Your task to perform on an android device: turn smart compose on in the gmail app Image 0: 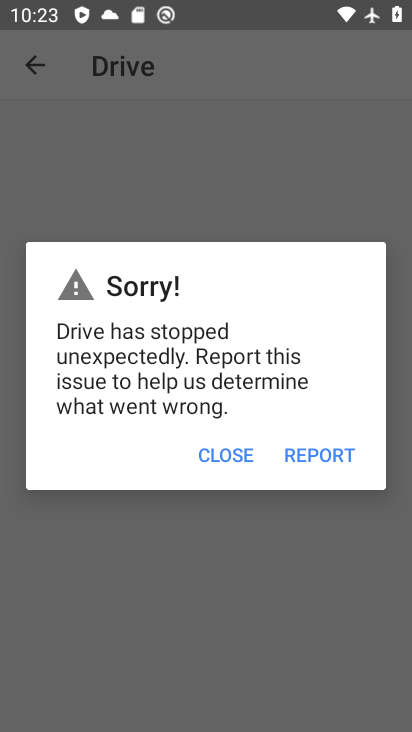
Step 0: press home button
Your task to perform on an android device: turn smart compose on in the gmail app Image 1: 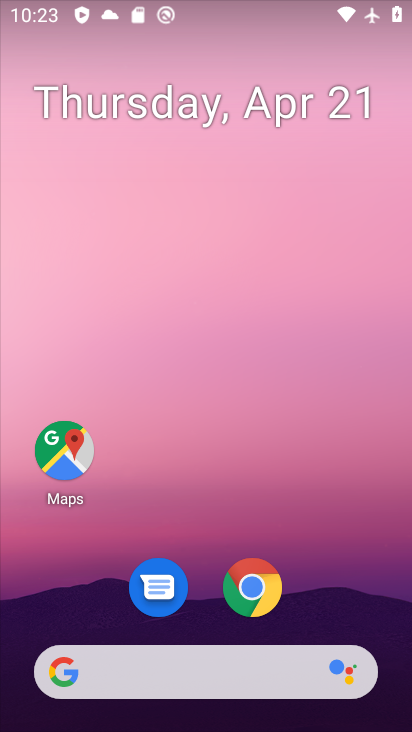
Step 1: drag from (346, 546) to (351, 187)
Your task to perform on an android device: turn smart compose on in the gmail app Image 2: 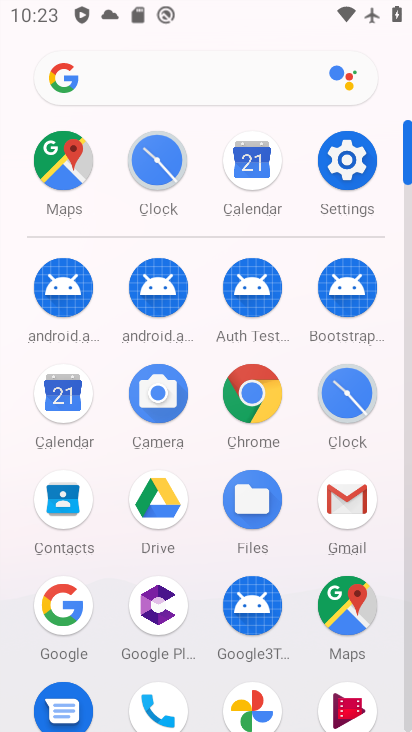
Step 2: click (351, 503)
Your task to perform on an android device: turn smart compose on in the gmail app Image 3: 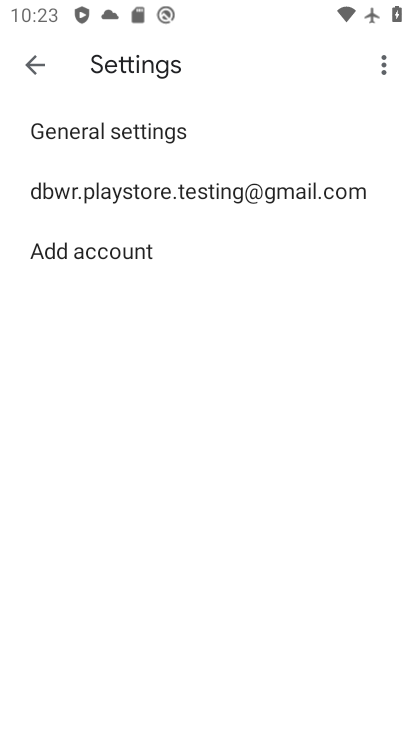
Step 3: click (270, 200)
Your task to perform on an android device: turn smart compose on in the gmail app Image 4: 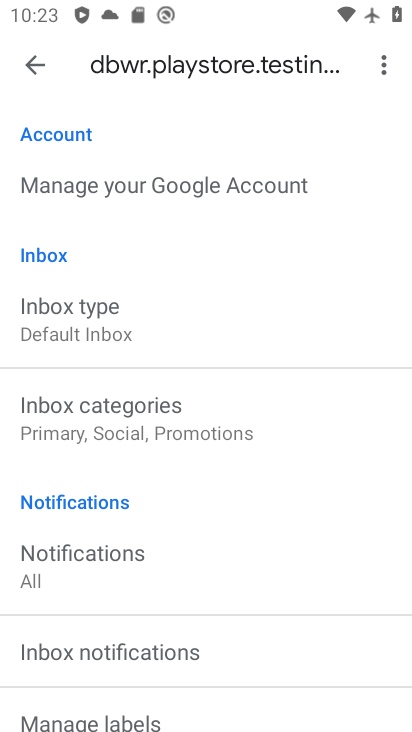
Step 4: task complete